Your task to perform on an android device: Do I have any events tomorrow? Image 0: 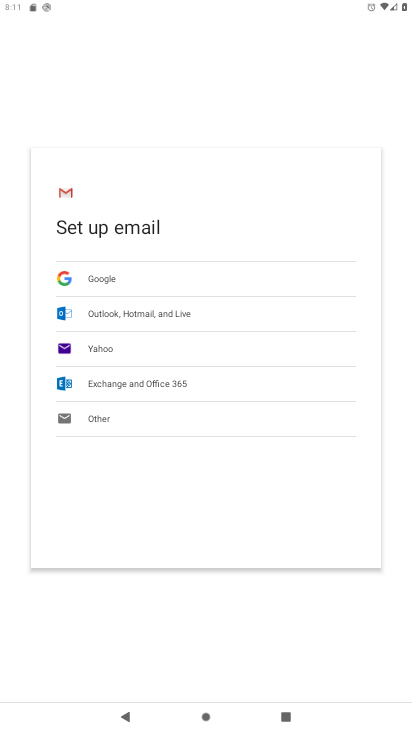
Step 0: press home button
Your task to perform on an android device: Do I have any events tomorrow? Image 1: 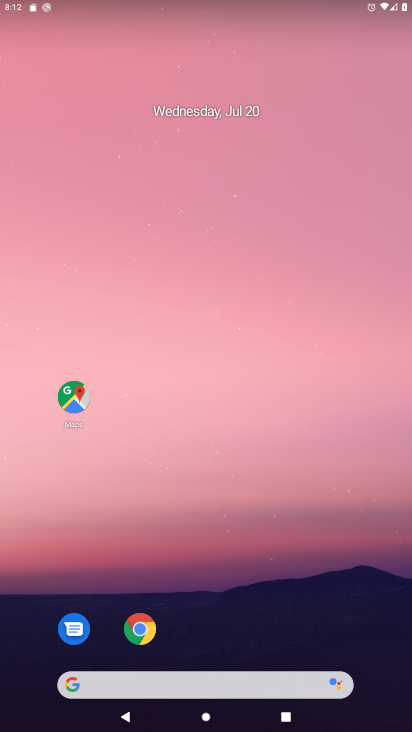
Step 1: drag from (297, 606) to (255, 224)
Your task to perform on an android device: Do I have any events tomorrow? Image 2: 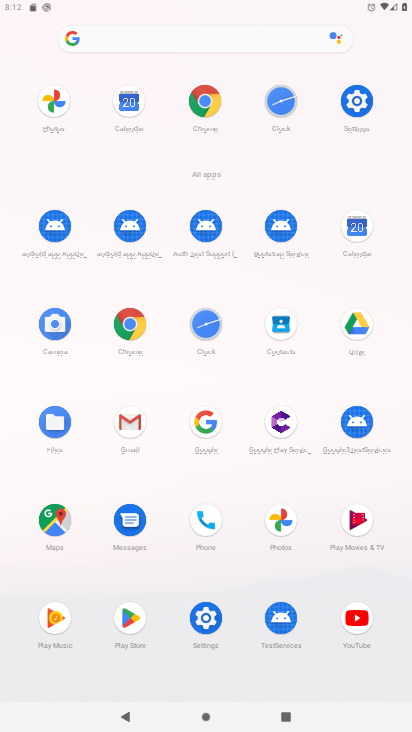
Step 2: click (348, 230)
Your task to perform on an android device: Do I have any events tomorrow? Image 3: 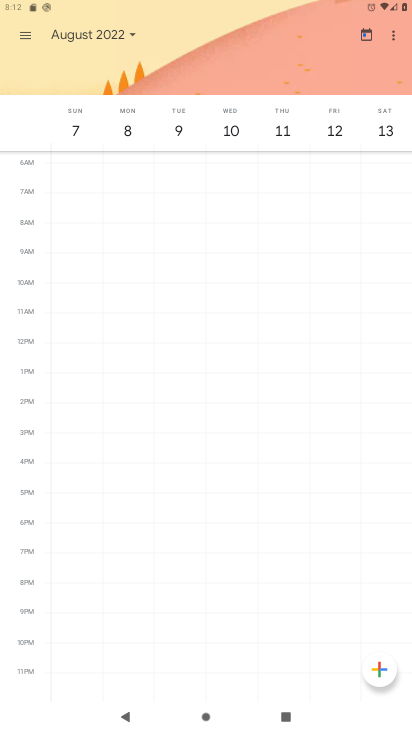
Step 3: click (59, 28)
Your task to perform on an android device: Do I have any events tomorrow? Image 4: 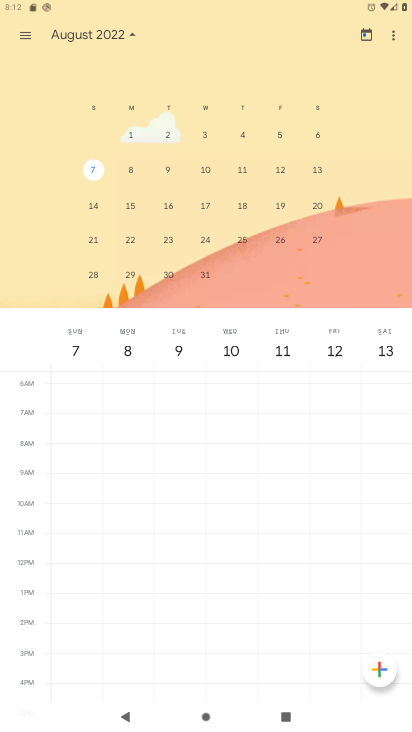
Step 4: drag from (59, 218) to (407, 194)
Your task to perform on an android device: Do I have any events tomorrow? Image 5: 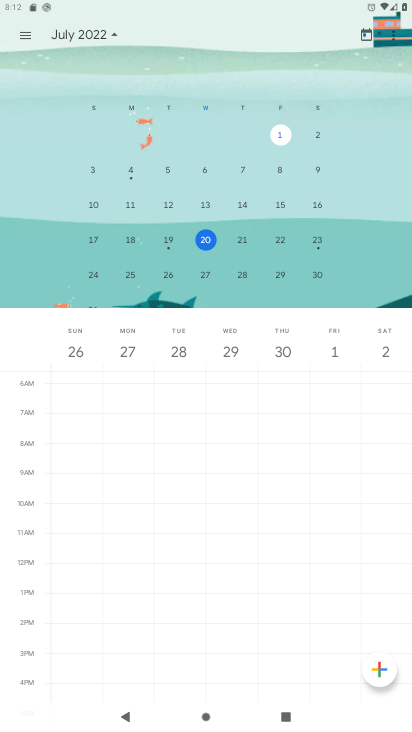
Step 5: click (243, 239)
Your task to perform on an android device: Do I have any events tomorrow? Image 6: 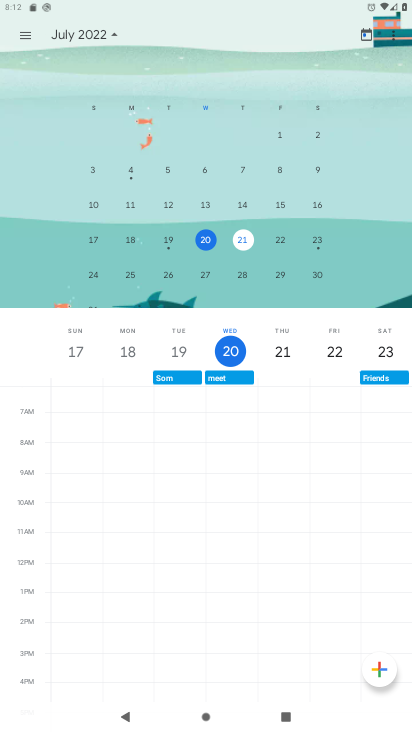
Step 6: click (17, 28)
Your task to perform on an android device: Do I have any events tomorrow? Image 7: 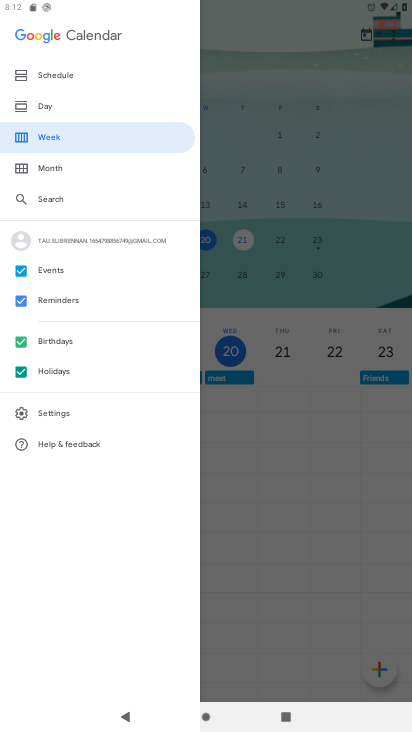
Step 7: click (56, 112)
Your task to perform on an android device: Do I have any events tomorrow? Image 8: 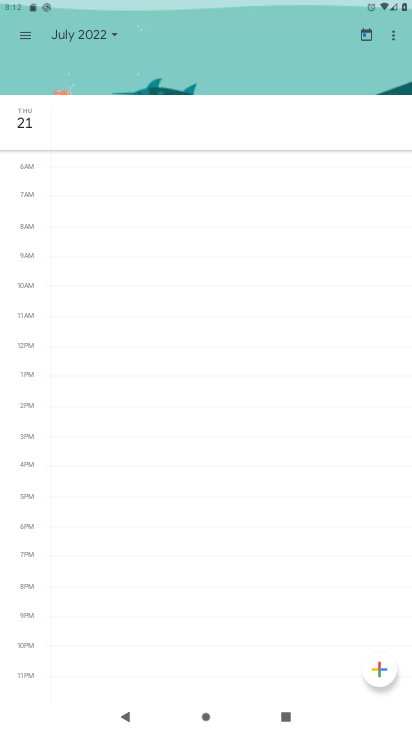
Step 8: task complete